Your task to perform on an android device: Open CNN.com Image 0: 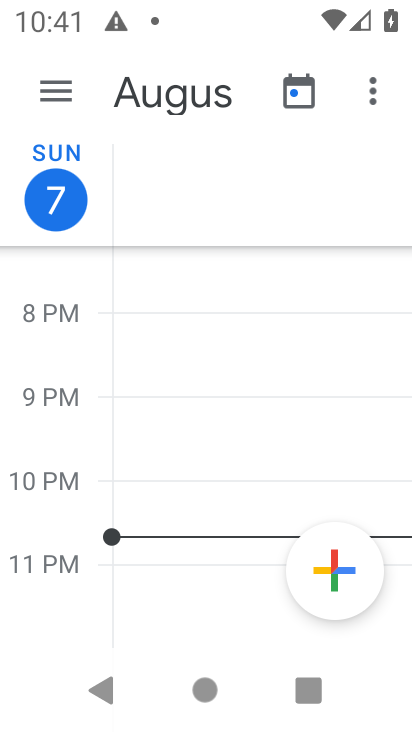
Step 0: press home button
Your task to perform on an android device: Open CNN.com Image 1: 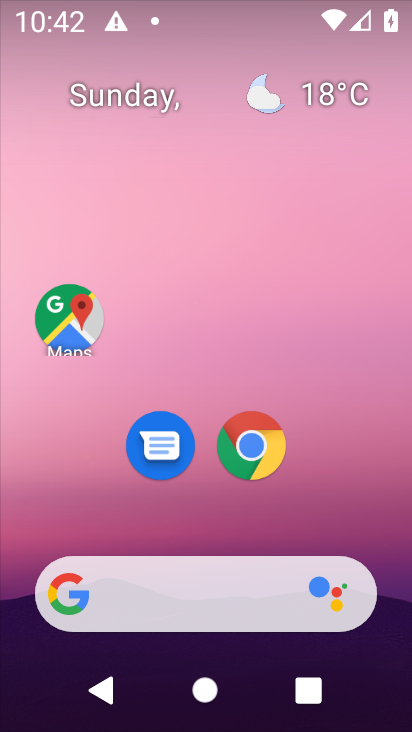
Step 1: click (264, 442)
Your task to perform on an android device: Open CNN.com Image 2: 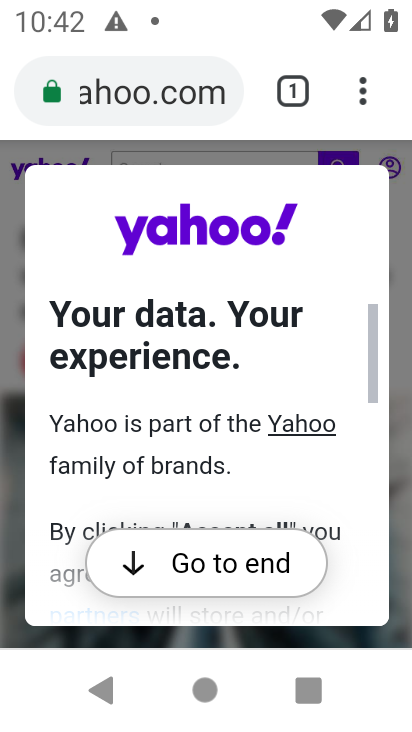
Step 2: click (205, 112)
Your task to perform on an android device: Open CNN.com Image 3: 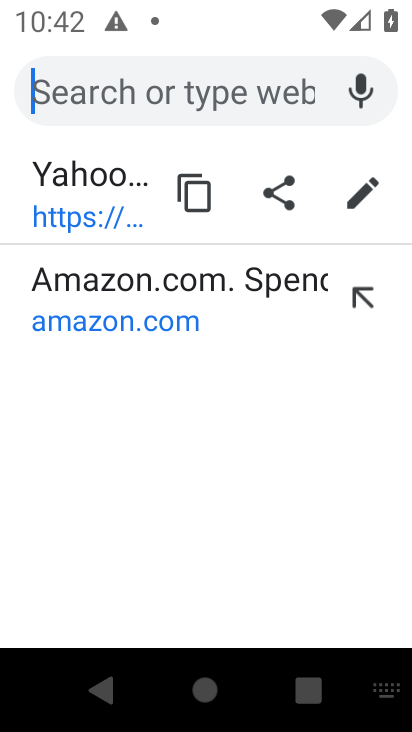
Step 3: type "cnn.com"
Your task to perform on an android device: Open CNN.com Image 4: 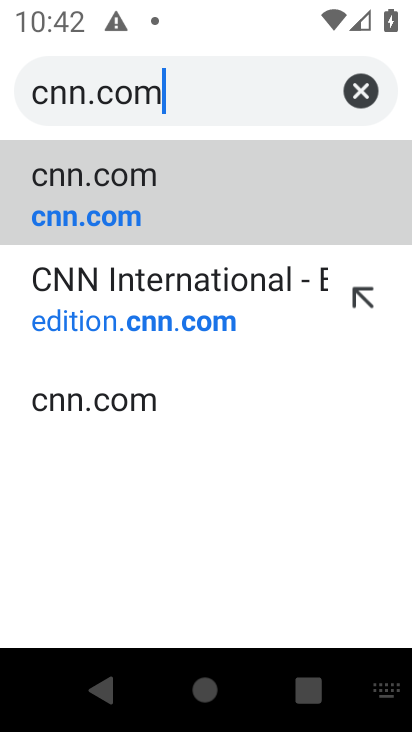
Step 4: click (239, 173)
Your task to perform on an android device: Open CNN.com Image 5: 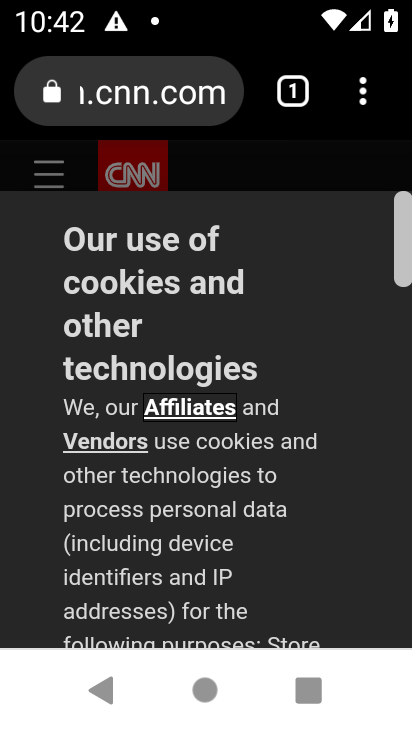
Step 5: task complete